Your task to perform on an android device: Open the web browser Image 0: 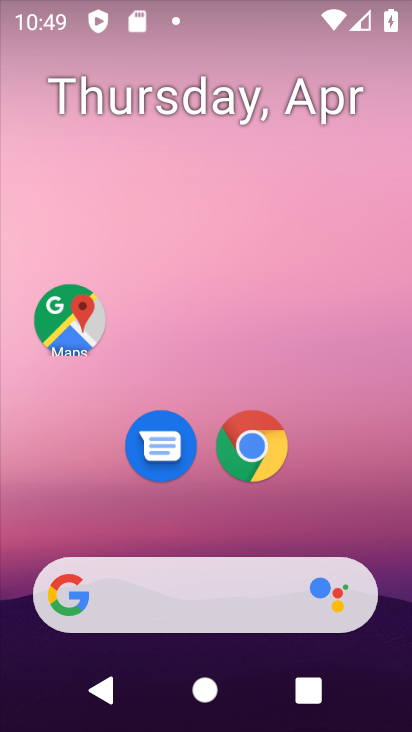
Step 0: drag from (232, 270) to (252, 132)
Your task to perform on an android device: Open the web browser Image 1: 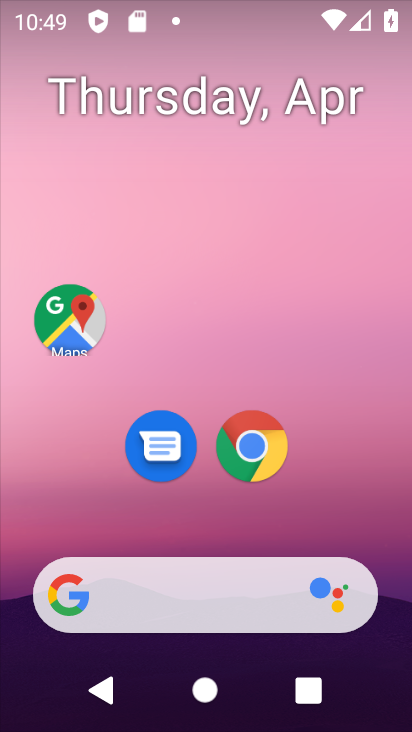
Step 1: drag from (205, 503) to (235, 5)
Your task to perform on an android device: Open the web browser Image 2: 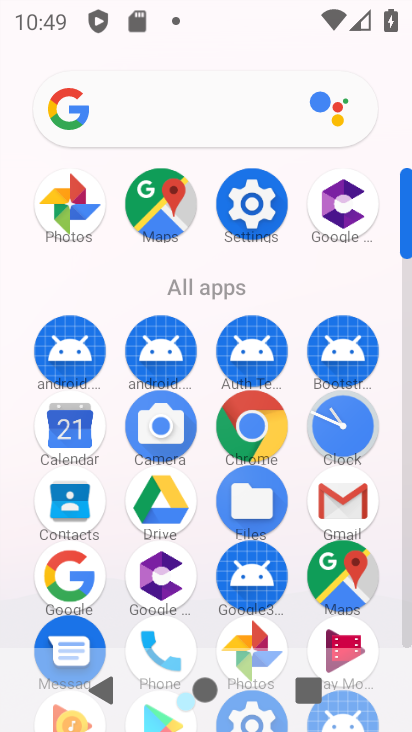
Step 2: click (258, 425)
Your task to perform on an android device: Open the web browser Image 3: 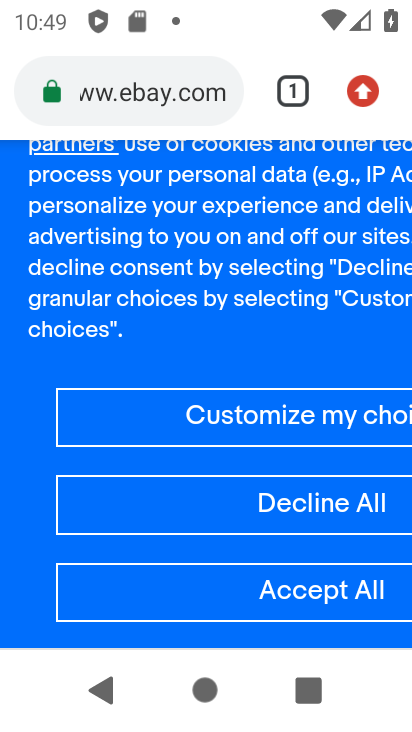
Step 3: drag from (213, 221) to (239, 623)
Your task to perform on an android device: Open the web browser Image 4: 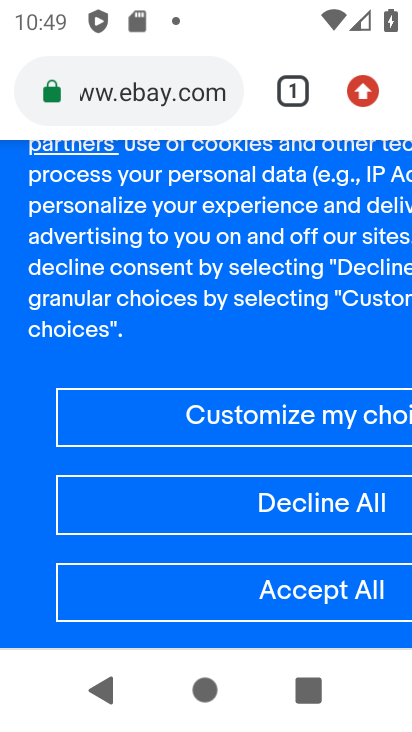
Step 4: click (297, 87)
Your task to perform on an android device: Open the web browser Image 5: 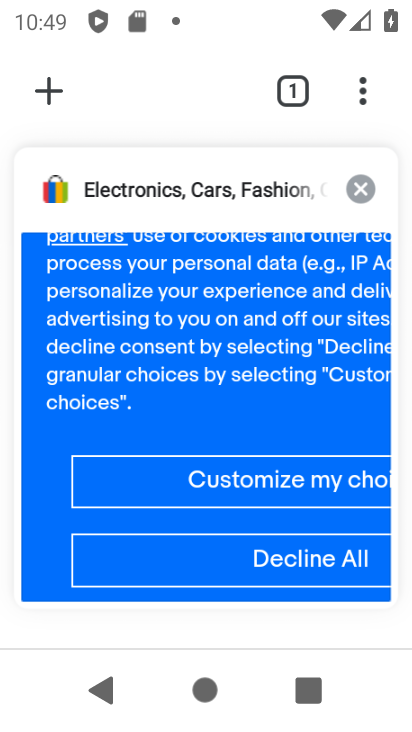
Step 5: click (221, 327)
Your task to perform on an android device: Open the web browser Image 6: 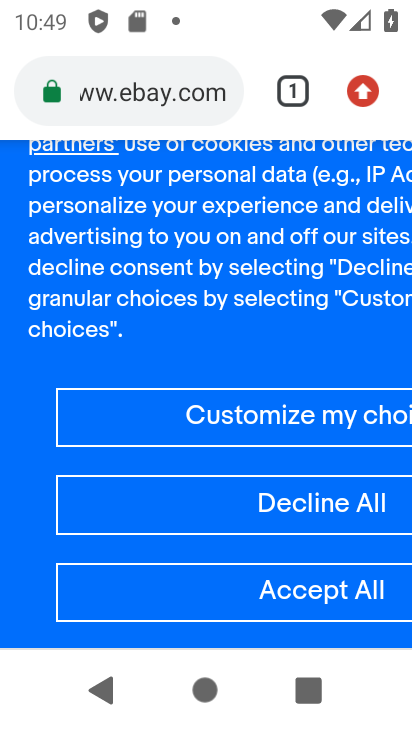
Step 6: task complete